Your task to perform on an android device: Open Yahoo.com Image 0: 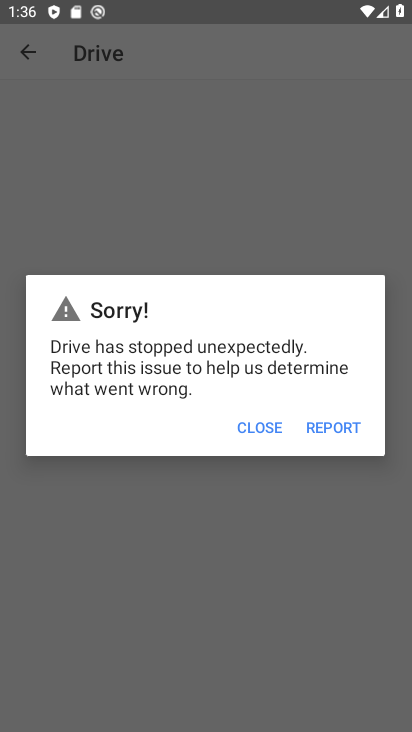
Step 0: click (267, 432)
Your task to perform on an android device: Open Yahoo.com Image 1: 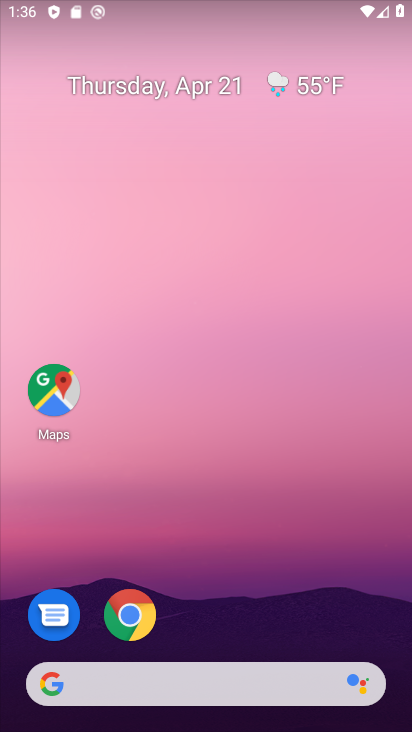
Step 1: click (129, 611)
Your task to perform on an android device: Open Yahoo.com Image 2: 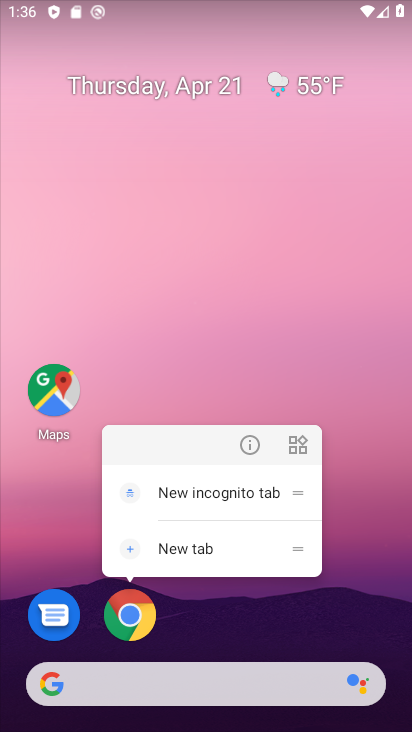
Step 2: click (129, 611)
Your task to perform on an android device: Open Yahoo.com Image 3: 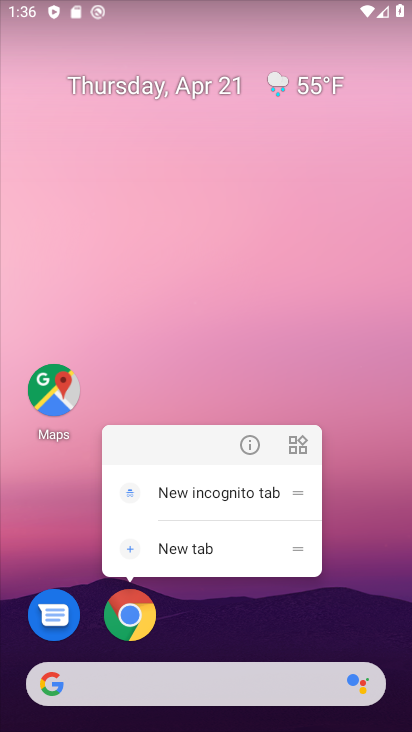
Step 3: click (129, 621)
Your task to perform on an android device: Open Yahoo.com Image 4: 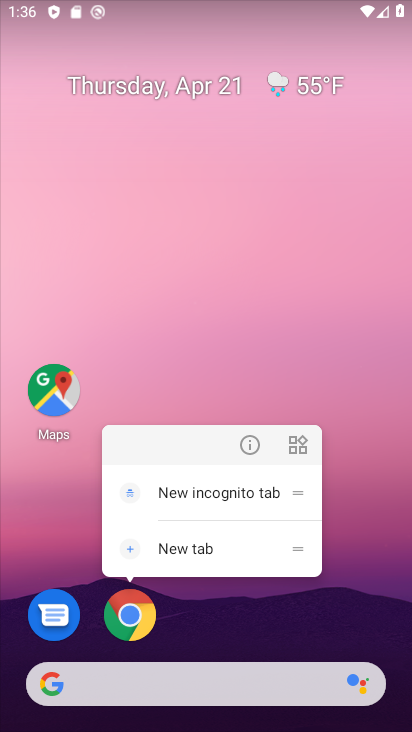
Step 4: click (129, 621)
Your task to perform on an android device: Open Yahoo.com Image 5: 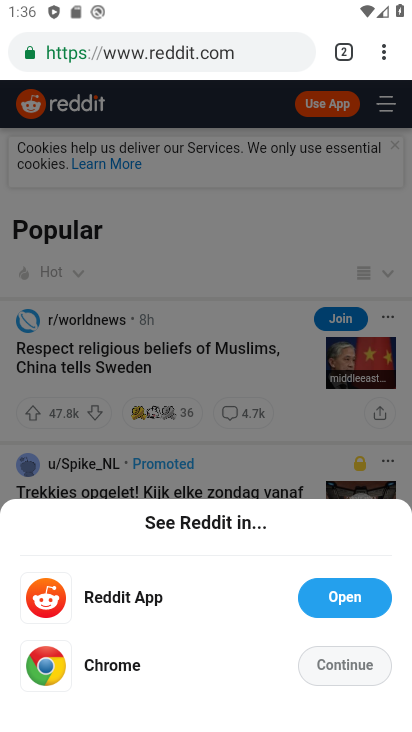
Step 5: click (339, 51)
Your task to perform on an android device: Open Yahoo.com Image 6: 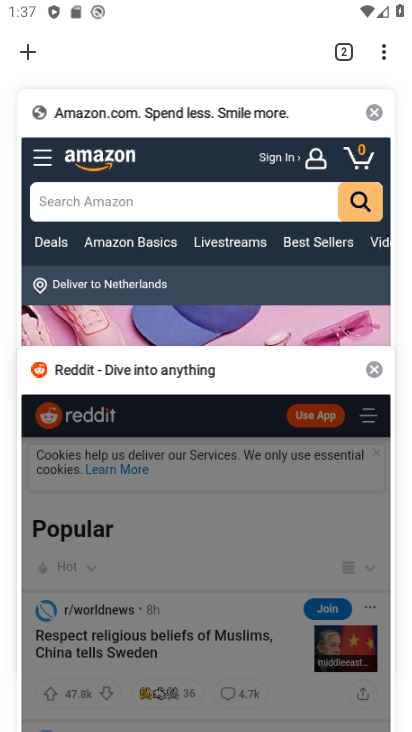
Step 6: click (372, 116)
Your task to perform on an android device: Open Yahoo.com Image 7: 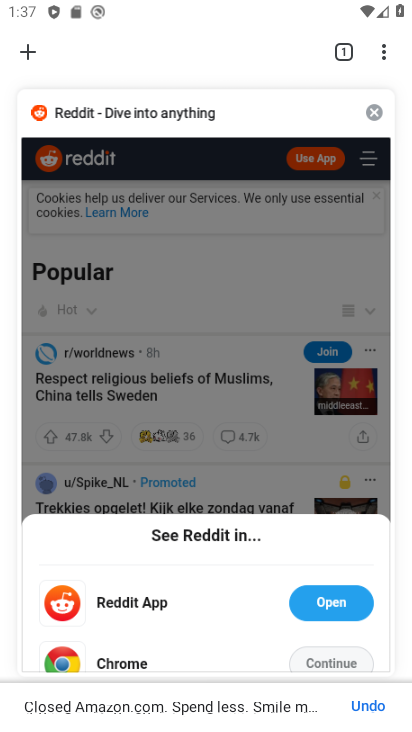
Step 7: click (370, 104)
Your task to perform on an android device: Open Yahoo.com Image 8: 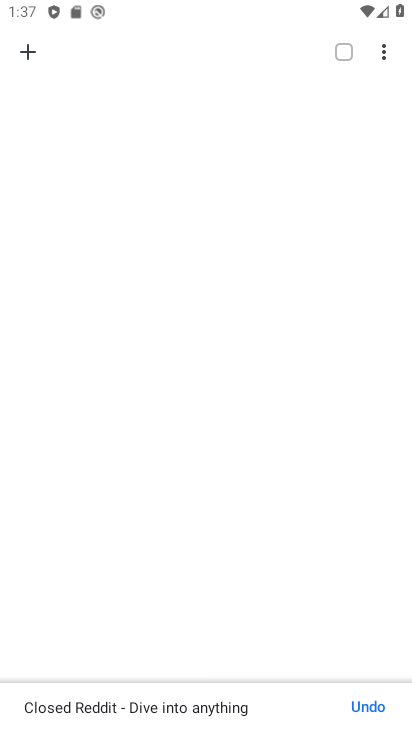
Step 8: click (20, 52)
Your task to perform on an android device: Open Yahoo.com Image 9: 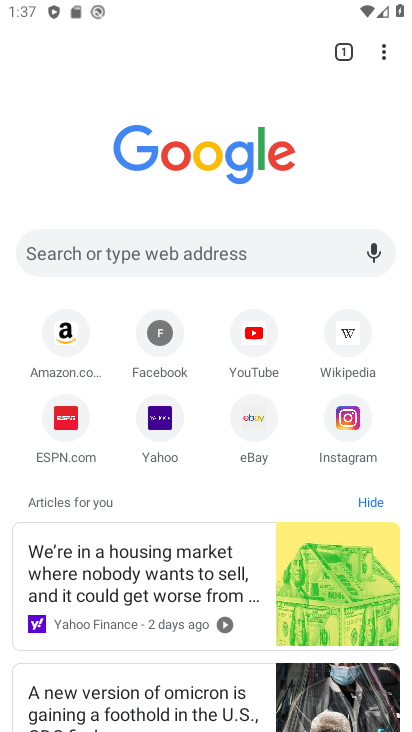
Step 9: click (150, 413)
Your task to perform on an android device: Open Yahoo.com Image 10: 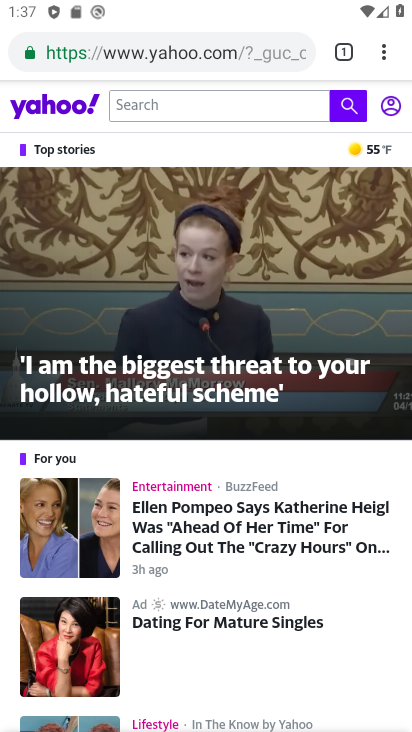
Step 10: drag from (212, 668) to (225, 322)
Your task to perform on an android device: Open Yahoo.com Image 11: 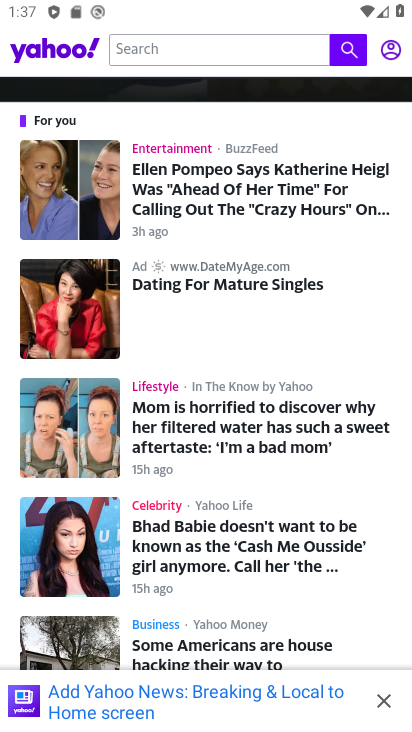
Step 11: click (233, 385)
Your task to perform on an android device: Open Yahoo.com Image 12: 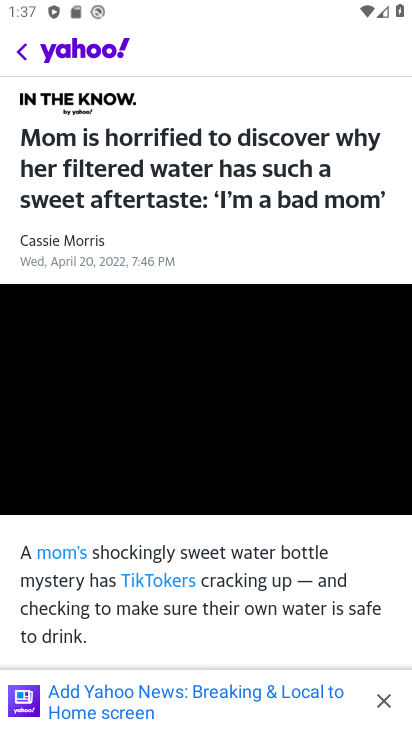
Step 12: task complete